Your task to perform on an android device: delete location history Image 0: 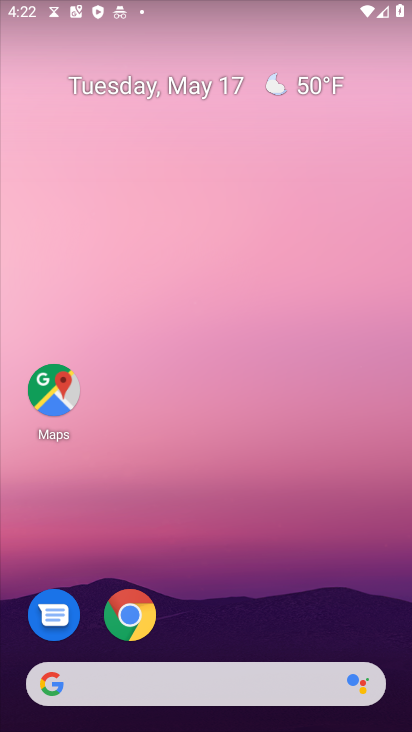
Step 0: drag from (291, 636) to (193, 39)
Your task to perform on an android device: delete location history Image 1: 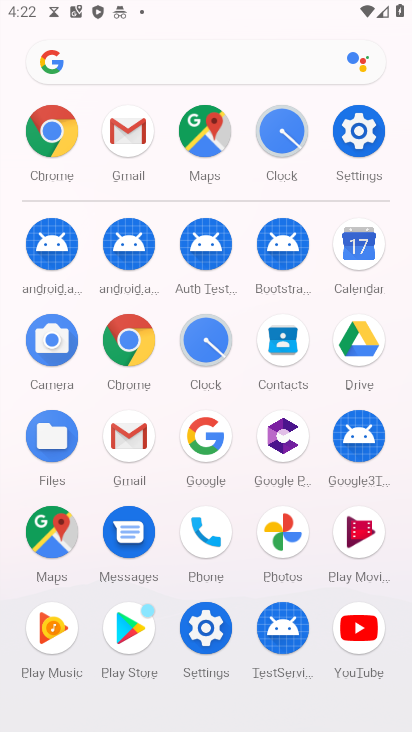
Step 1: click (199, 139)
Your task to perform on an android device: delete location history Image 2: 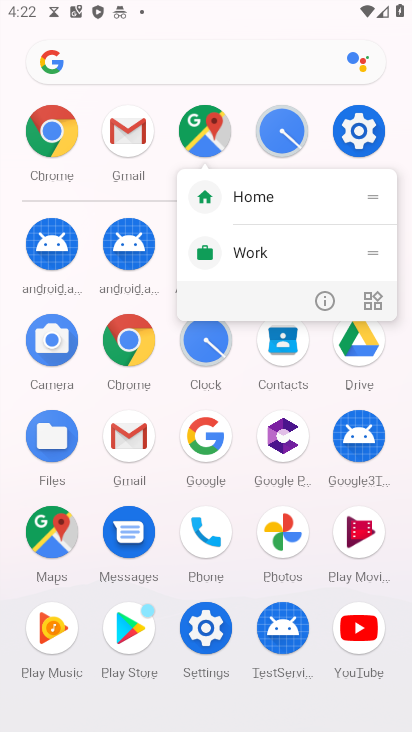
Step 2: click (199, 139)
Your task to perform on an android device: delete location history Image 3: 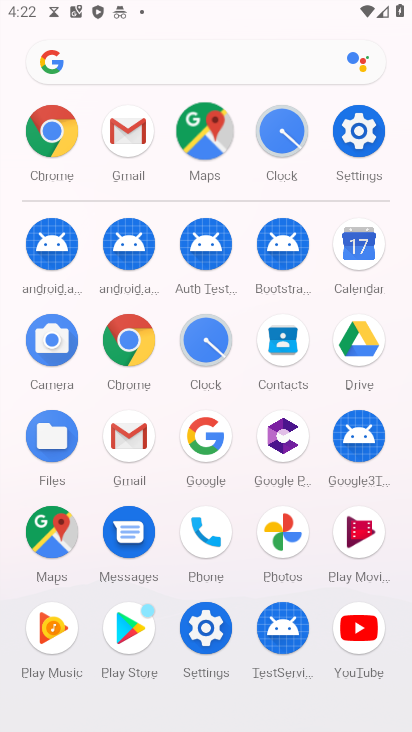
Step 3: click (199, 139)
Your task to perform on an android device: delete location history Image 4: 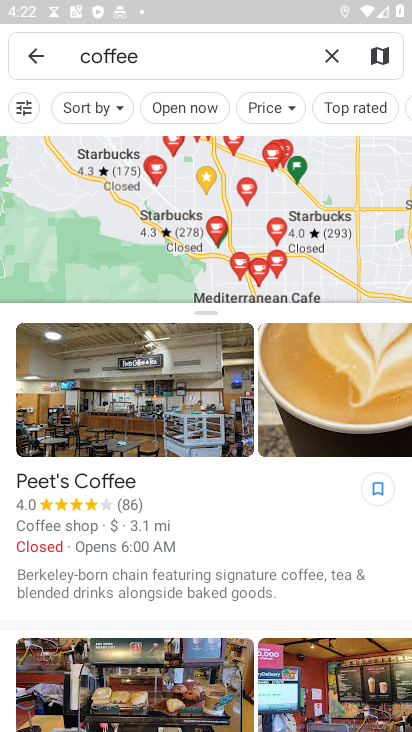
Step 4: click (336, 47)
Your task to perform on an android device: delete location history Image 5: 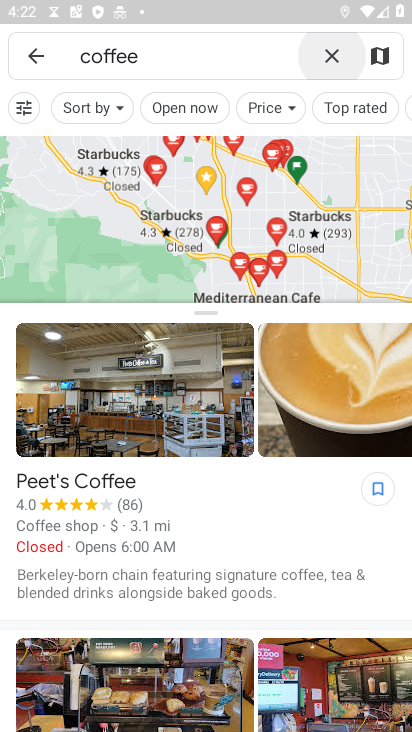
Step 5: click (337, 51)
Your task to perform on an android device: delete location history Image 6: 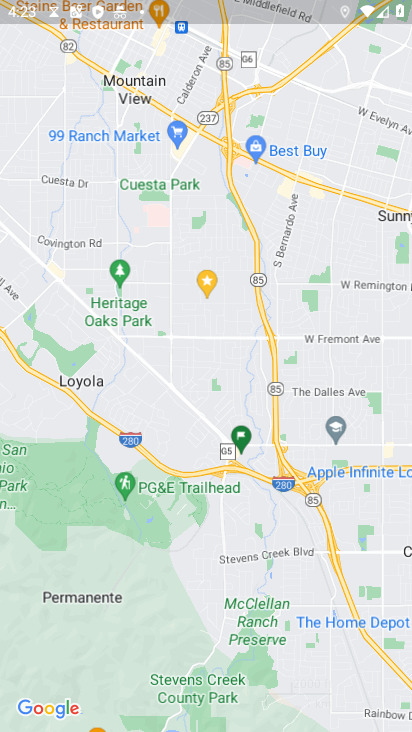
Step 6: drag from (139, 94) to (202, 379)
Your task to perform on an android device: delete location history Image 7: 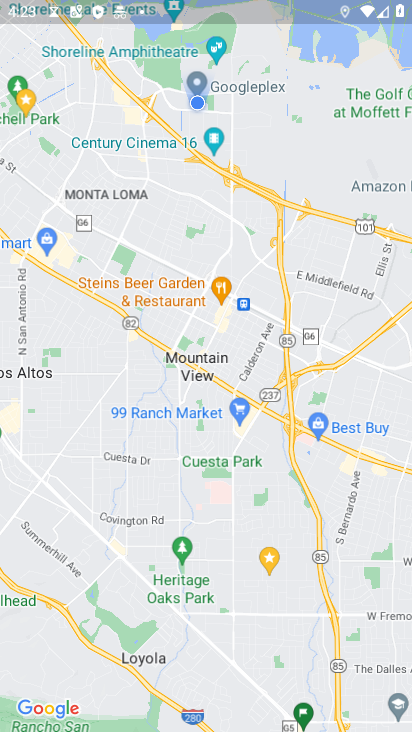
Step 7: drag from (188, 456) to (155, 184)
Your task to perform on an android device: delete location history Image 8: 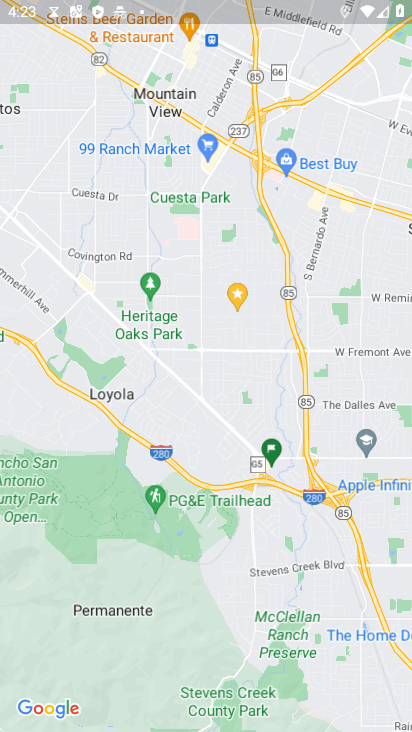
Step 8: press back button
Your task to perform on an android device: delete location history Image 9: 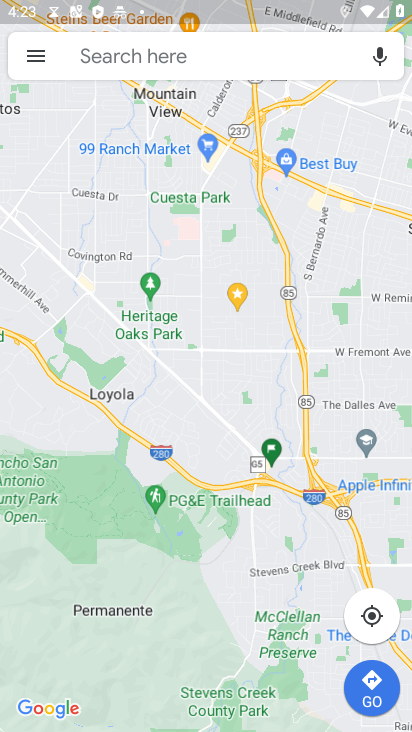
Step 9: click (97, 58)
Your task to perform on an android device: delete location history Image 10: 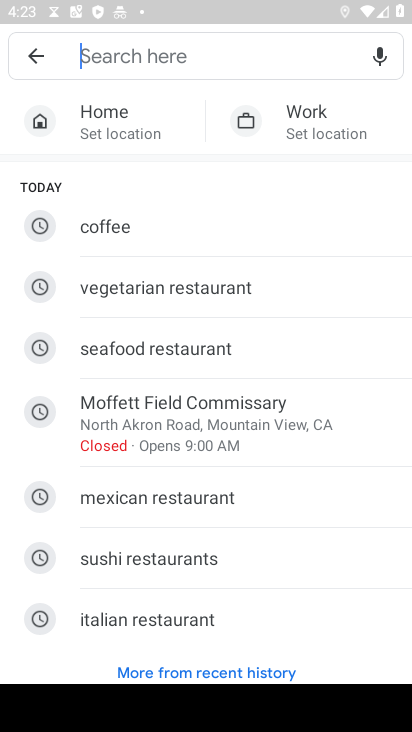
Step 10: click (31, 40)
Your task to perform on an android device: delete location history Image 11: 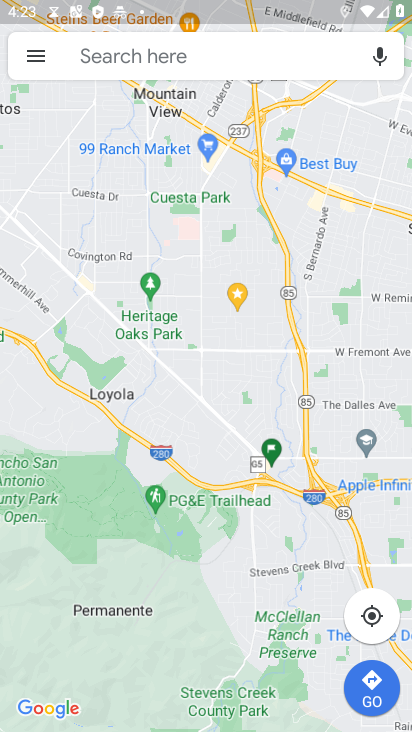
Step 11: click (37, 60)
Your task to perform on an android device: delete location history Image 12: 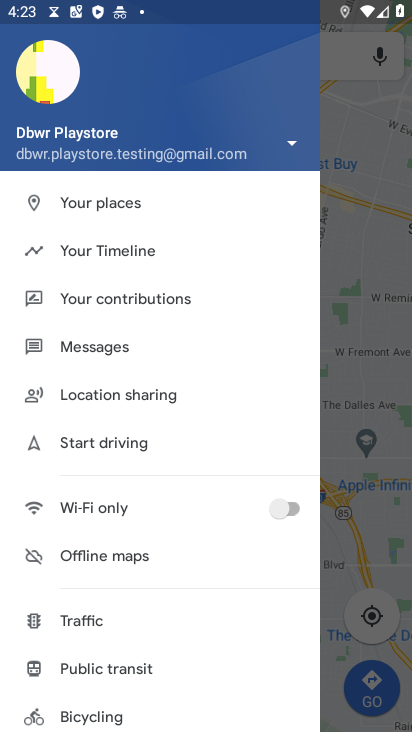
Step 12: click (114, 250)
Your task to perform on an android device: delete location history Image 13: 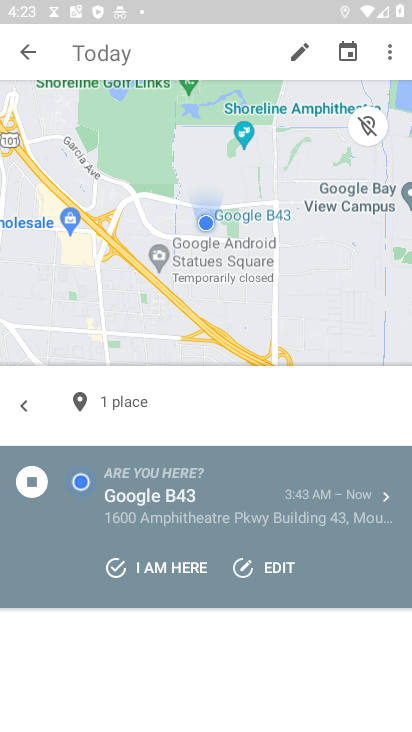
Step 13: click (389, 58)
Your task to perform on an android device: delete location history Image 14: 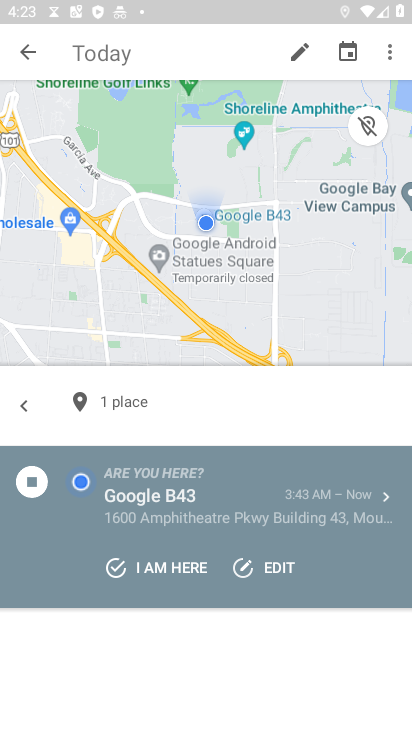
Step 14: click (392, 61)
Your task to perform on an android device: delete location history Image 15: 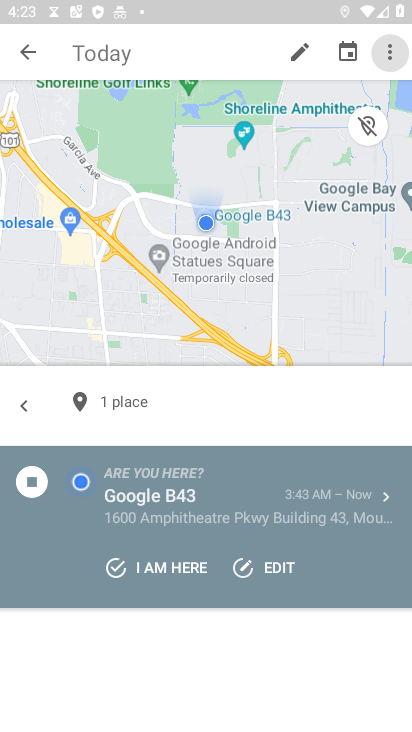
Step 15: click (392, 61)
Your task to perform on an android device: delete location history Image 16: 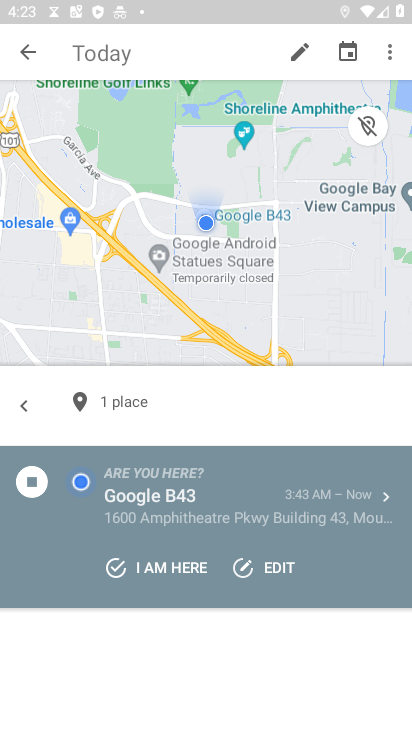
Step 16: click (392, 61)
Your task to perform on an android device: delete location history Image 17: 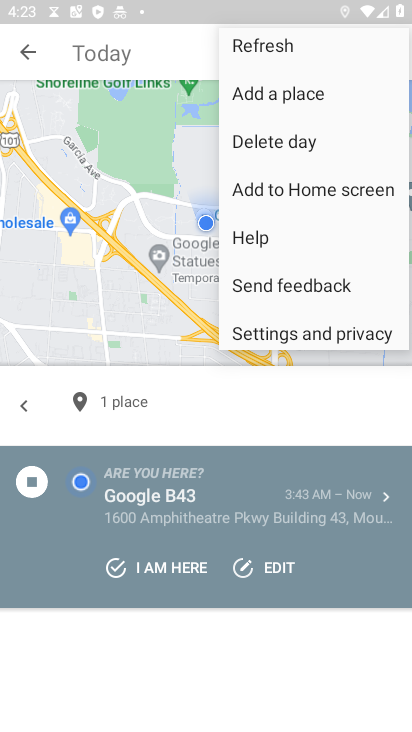
Step 17: click (392, 61)
Your task to perform on an android device: delete location history Image 18: 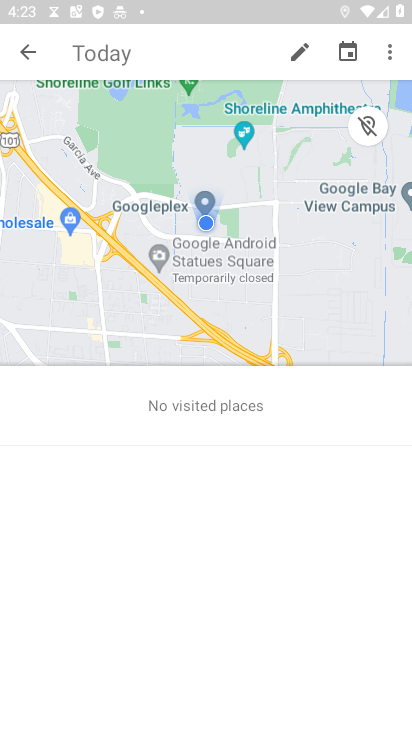
Step 18: click (388, 56)
Your task to perform on an android device: delete location history Image 19: 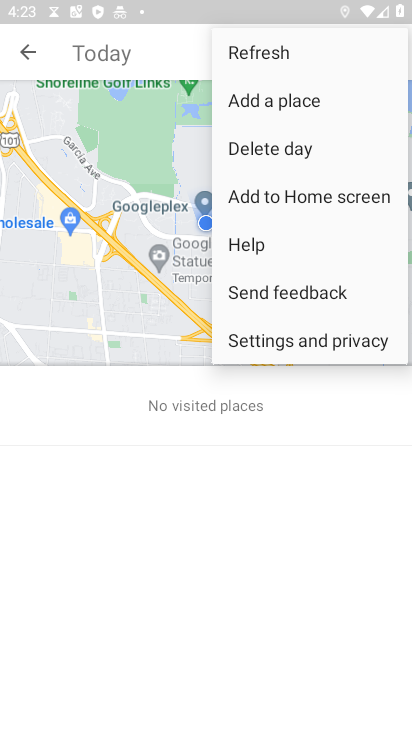
Step 19: click (271, 338)
Your task to perform on an android device: delete location history Image 20: 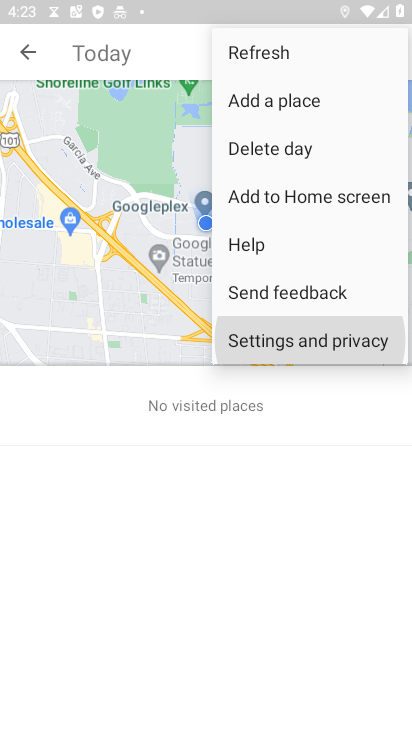
Step 20: click (272, 338)
Your task to perform on an android device: delete location history Image 21: 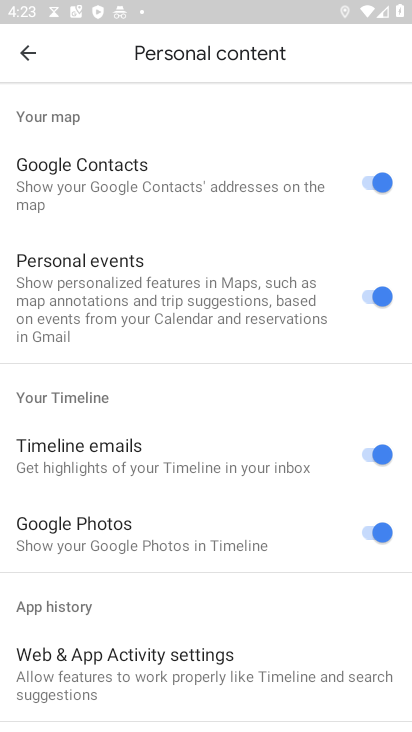
Step 21: drag from (142, 566) to (127, 176)
Your task to perform on an android device: delete location history Image 22: 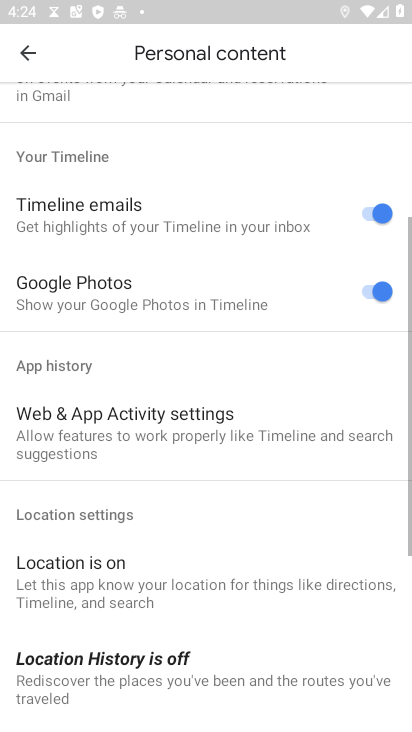
Step 22: drag from (195, 432) to (141, 95)
Your task to perform on an android device: delete location history Image 23: 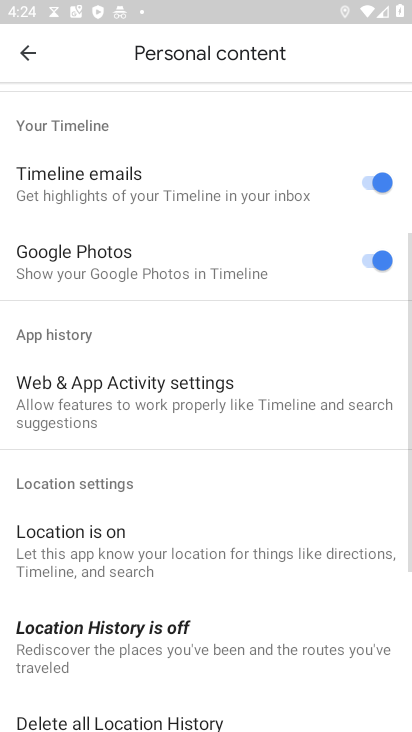
Step 23: drag from (174, 481) to (181, 219)
Your task to perform on an android device: delete location history Image 24: 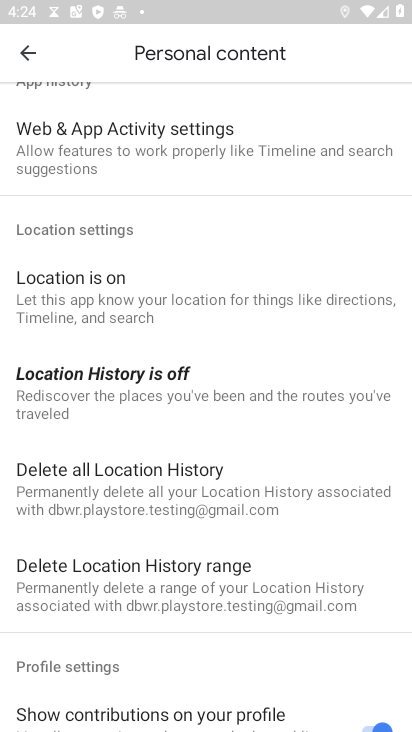
Step 24: click (105, 475)
Your task to perform on an android device: delete location history Image 25: 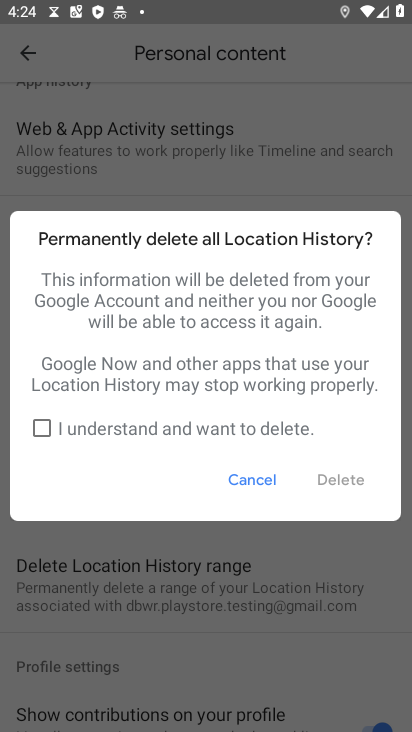
Step 25: click (46, 423)
Your task to perform on an android device: delete location history Image 26: 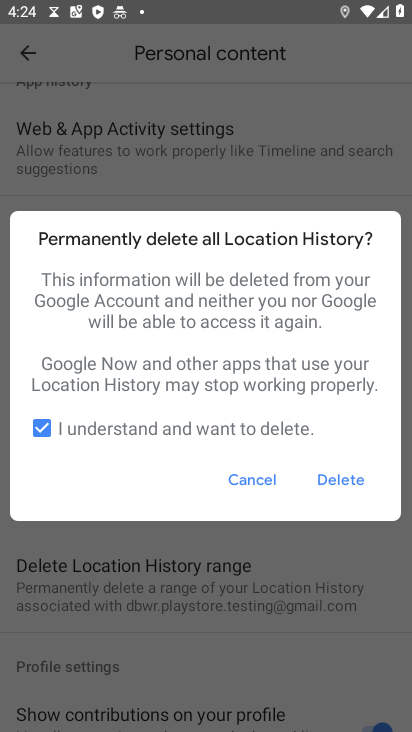
Step 26: click (349, 477)
Your task to perform on an android device: delete location history Image 27: 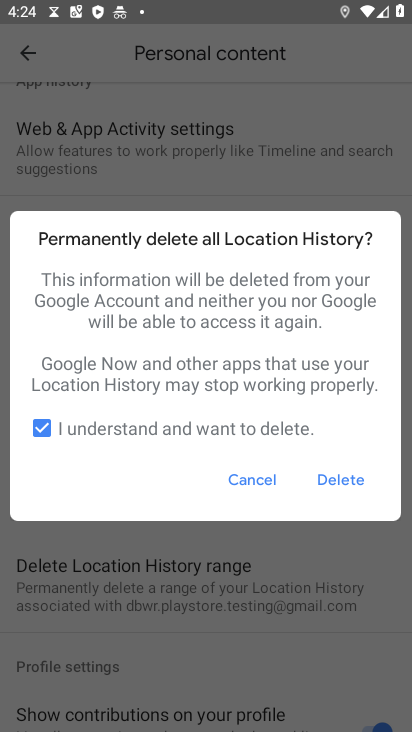
Step 27: click (349, 477)
Your task to perform on an android device: delete location history Image 28: 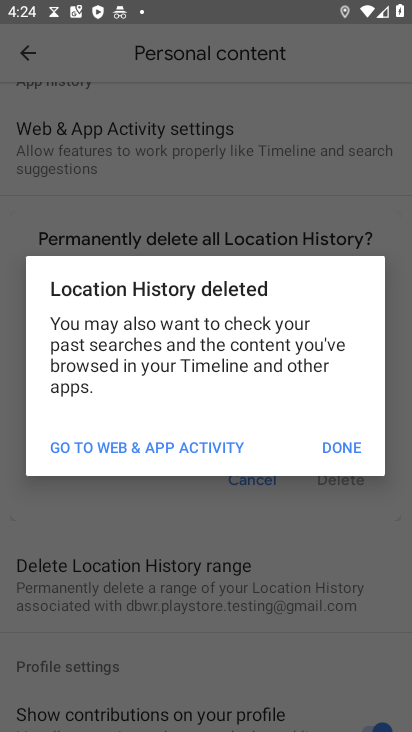
Step 28: click (346, 448)
Your task to perform on an android device: delete location history Image 29: 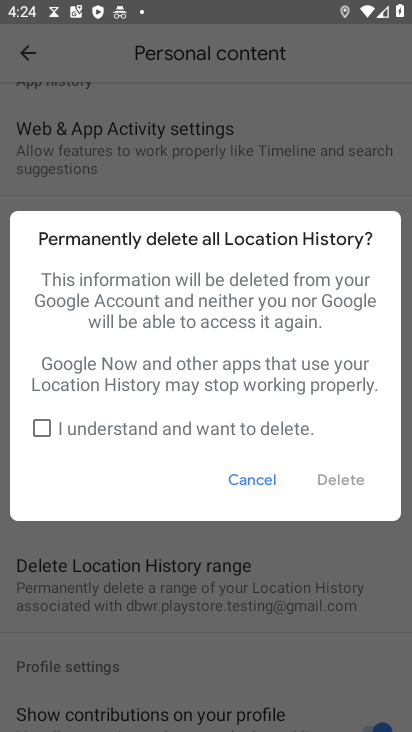
Step 29: task complete